Your task to perform on an android device: set the stopwatch Image 0: 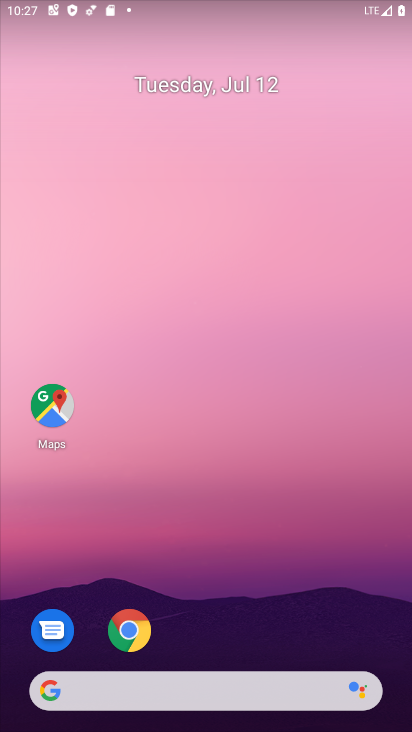
Step 0: drag from (234, 596) to (206, 123)
Your task to perform on an android device: set the stopwatch Image 1: 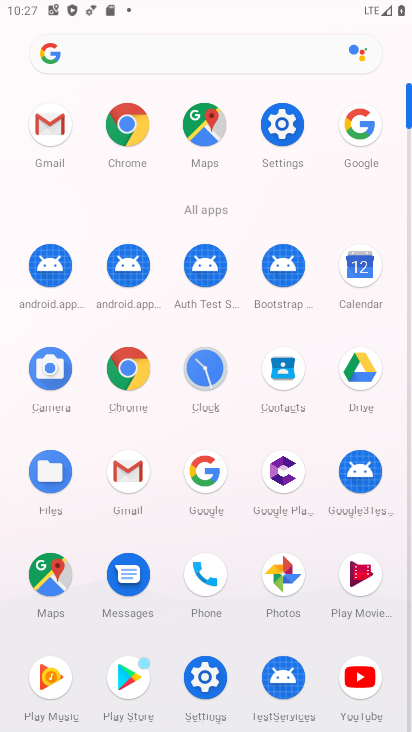
Step 1: click (197, 368)
Your task to perform on an android device: set the stopwatch Image 2: 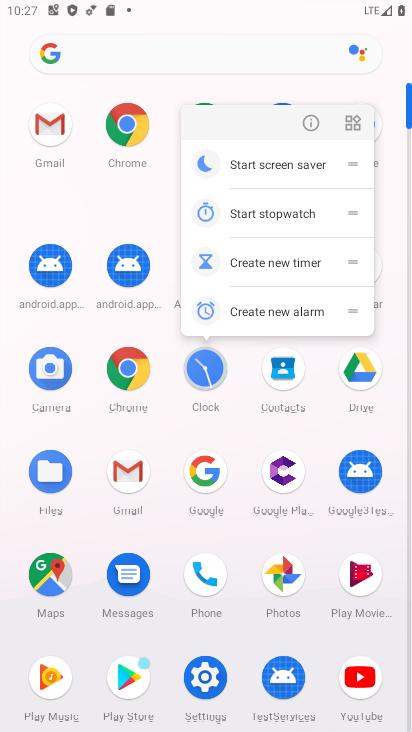
Step 2: click (202, 373)
Your task to perform on an android device: set the stopwatch Image 3: 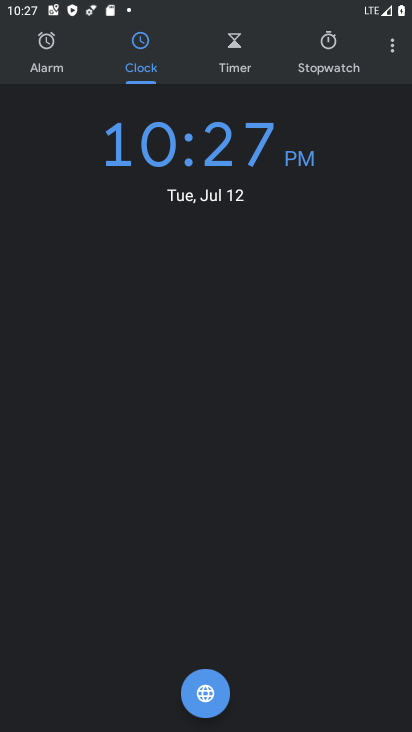
Step 3: click (323, 64)
Your task to perform on an android device: set the stopwatch Image 4: 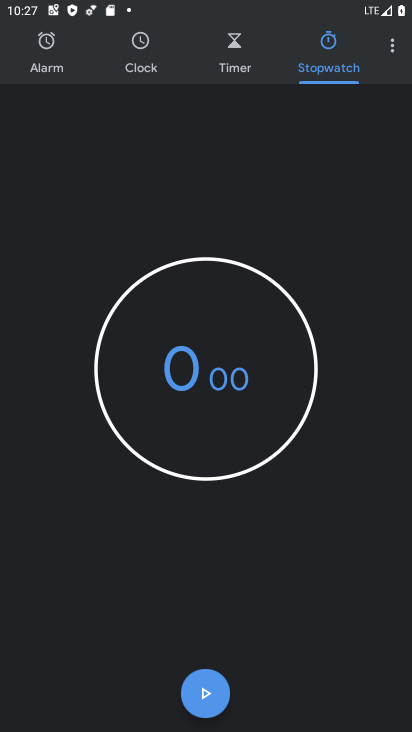
Step 4: click (208, 695)
Your task to perform on an android device: set the stopwatch Image 5: 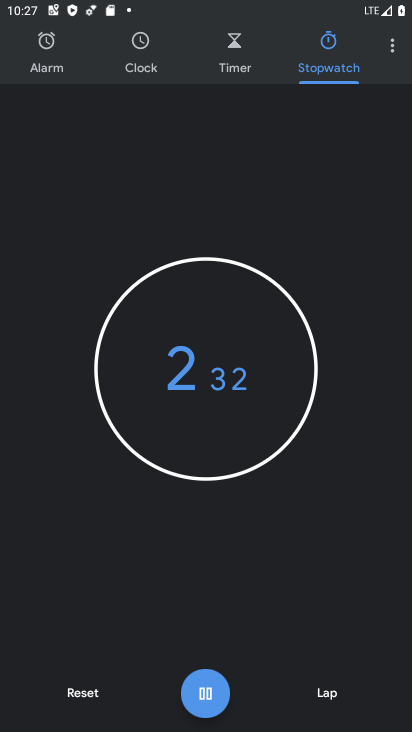
Step 5: click (210, 692)
Your task to perform on an android device: set the stopwatch Image 6: 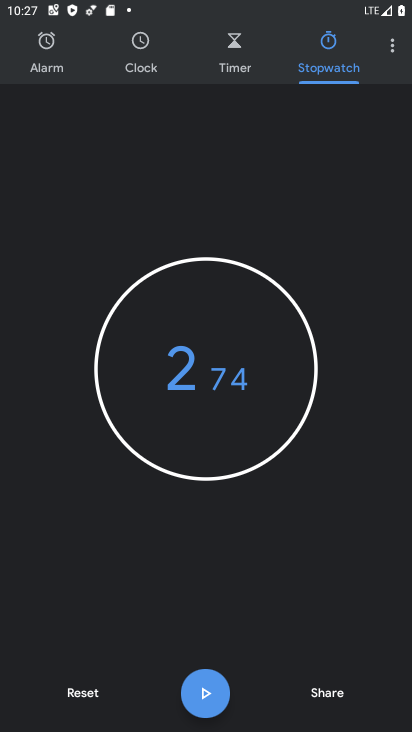
Step 6: task complete